Your task to perform on an android device: Open the map Image 0: 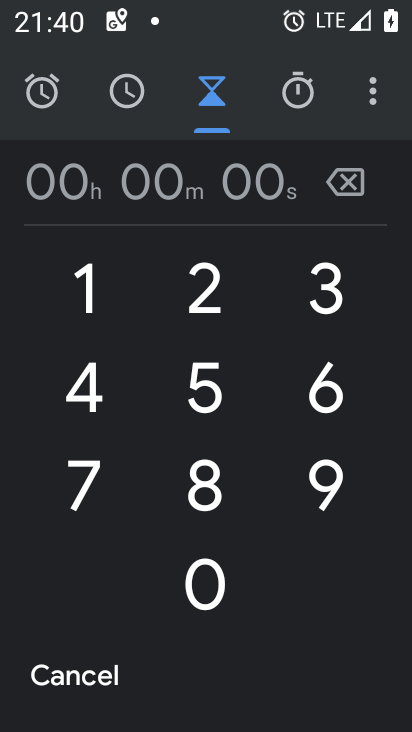
Step 0: press home button
Your task to perform on an android device: Open the map Image 1: 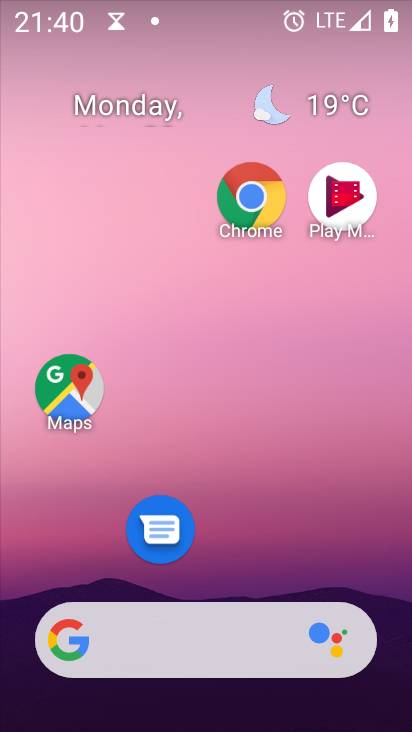
Step 1: click (56, 389)
Your task to perform on an android device: Open the map Image 2: 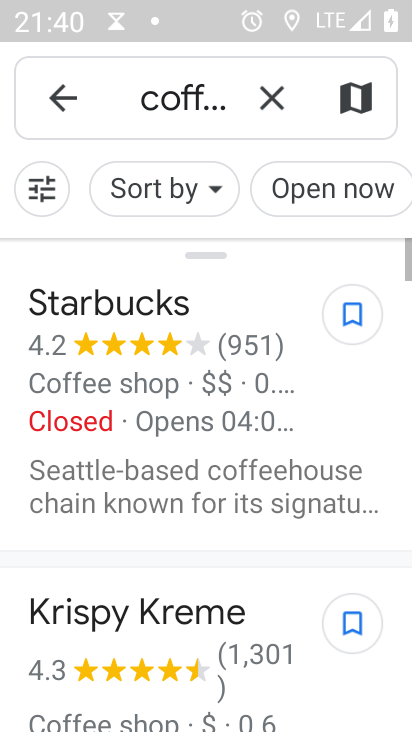
Step 2: click (62, 110)
Your task to perform on an android device: Open the map Image 3: 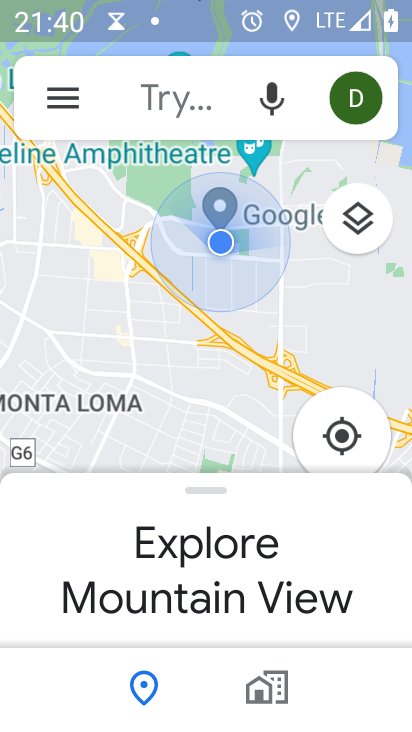
Step 3: task complete